Your task to perform on an android device: Search for pizza restaurants on Maps Image 0: 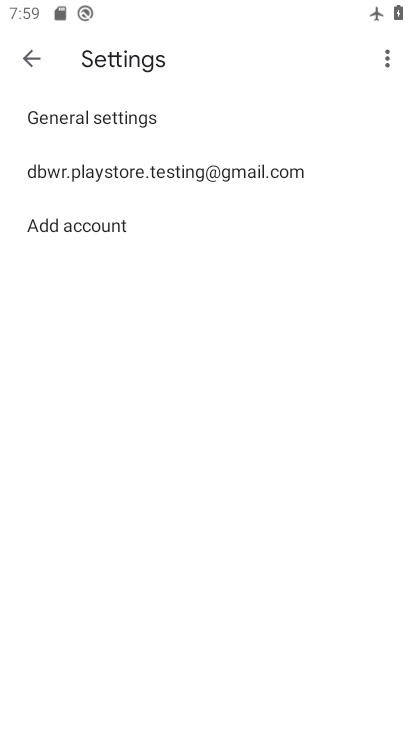
Step 0: press home button
Your task to perform on an android device: Search for pizza restaurants on Maps Image 1: 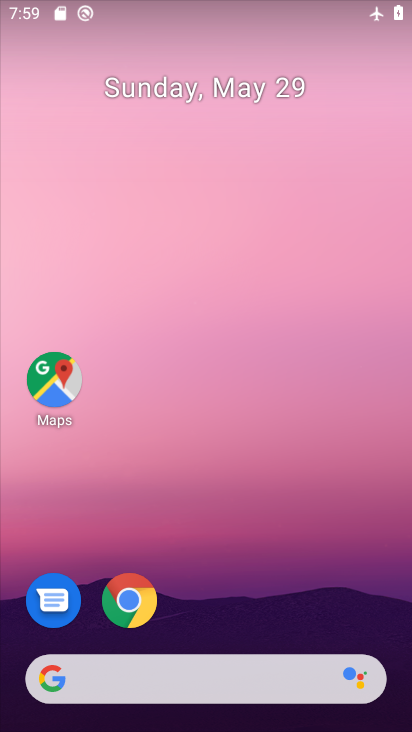
Step 1: click (67, 380)
Your task to perform on an android device: Search for pizza restaurants on Maps Image 2: 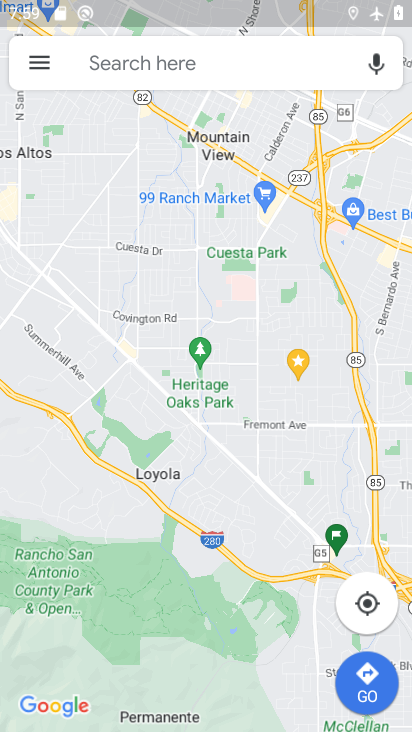
Step 2: click (186, 68)
Your task to perform on an android device: Search for pizza restaurants on Maps Image 3: 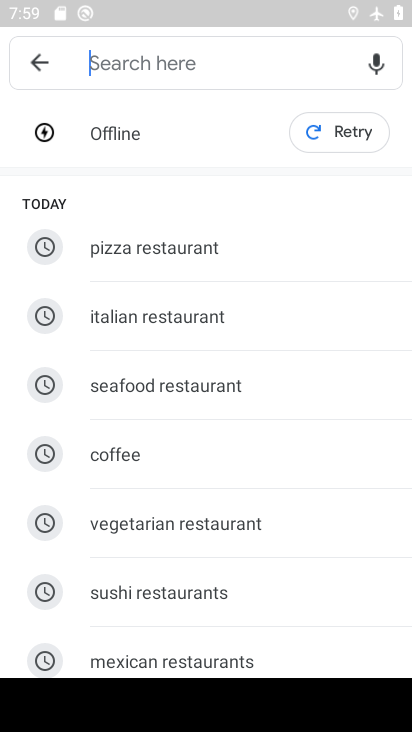
Step 3: click (169, 262)
Your task to perform on an android device: Search for pizza restaurants on Maps Image 4: 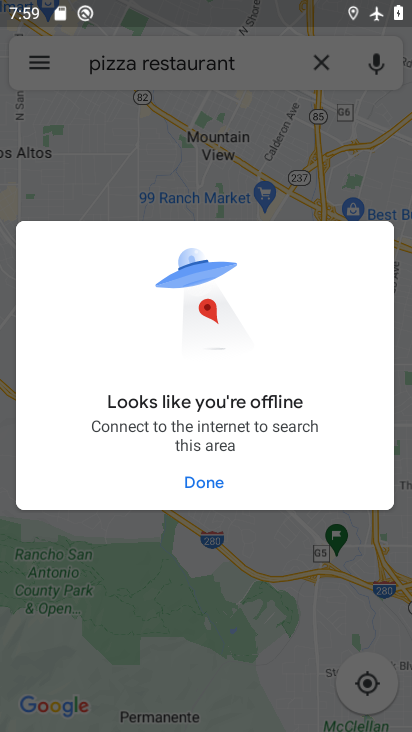
Step 4: click (195, 483)
Your task to perform on an android device: Search for pizza restaurants on Maps Image 5: 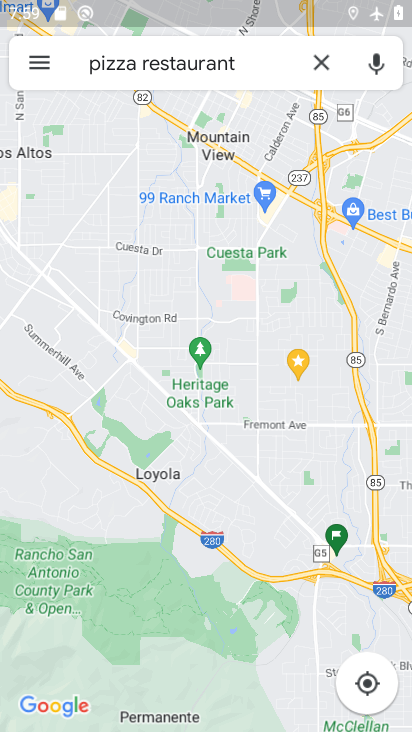
Step 5: task complete